Your task to perform on an android device: turn pop-ups off in chrome Image 0: 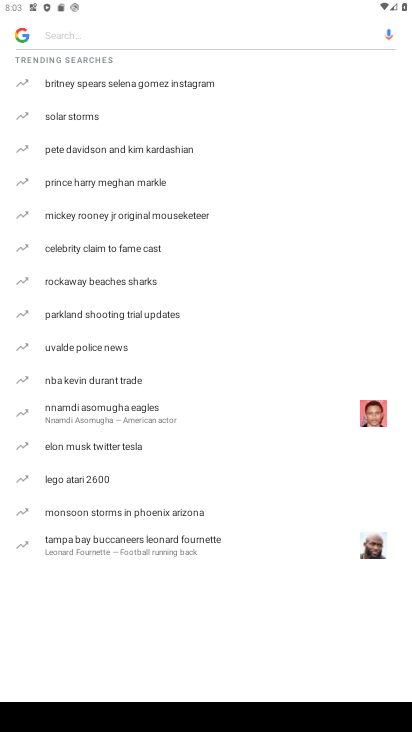
Step 0: press home button
Your task to perform on an android device: turn pop-ups off in chrome Image 1: 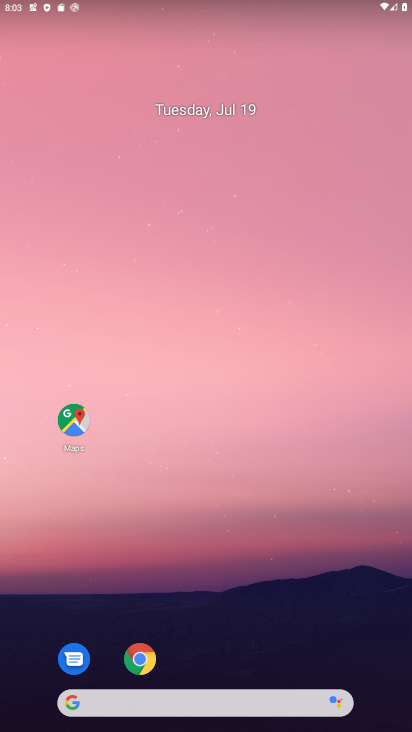
Step 1: click (143, 661)
Your task to perform on an android device: turn pop-ups off in chrome Image 2: 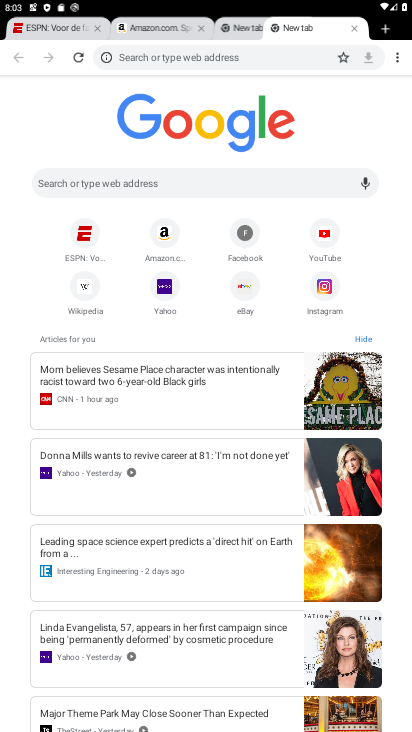
Step 2: click (396, 60)
Your task to perform on an android device: turn pop-ups off in chrome Image 3: 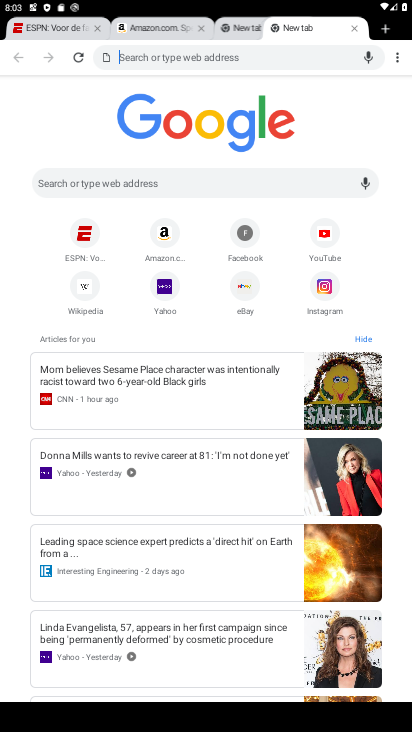
Step 3: click (395, 52)
Your task to perform on an android device: turn pop-ups off in chrome Image 4: 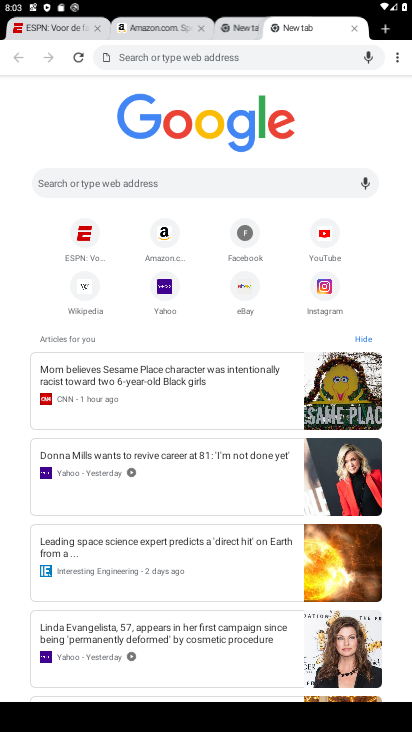
Step 4: click (403, 54)
Your task to perform on an android device: turn pop-ups off in chrome Image 5: 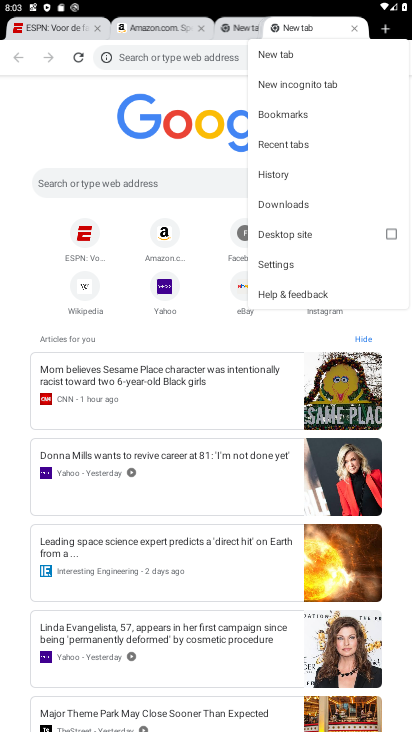
Step 5: click (278, 272)
Your task to perform on an android device: turn pop-ups off in chrome Image 6: 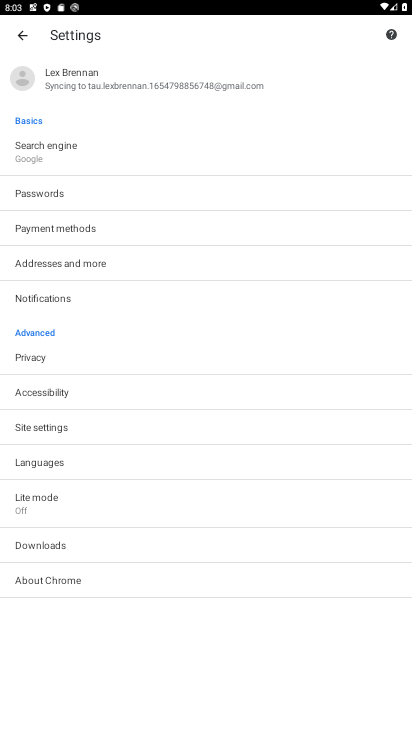
Step 6: click (30, 429)
Your task to perform on an android device: turn pop-ups off in chrome Image 7: 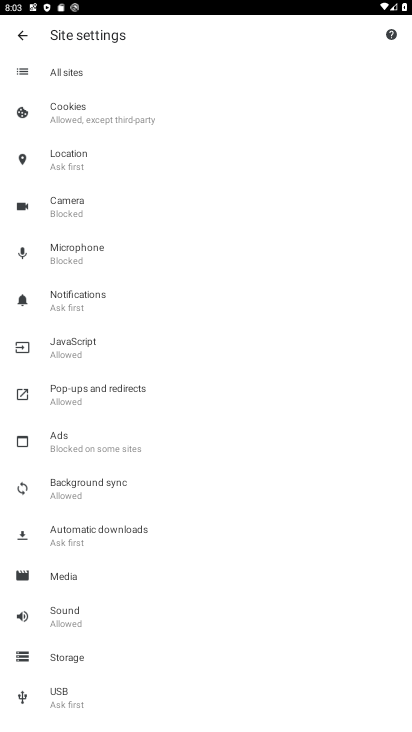
Step 7: click (90, 401)
Your task to perform on an android device: turn pop-ups off in chrome Image 8: 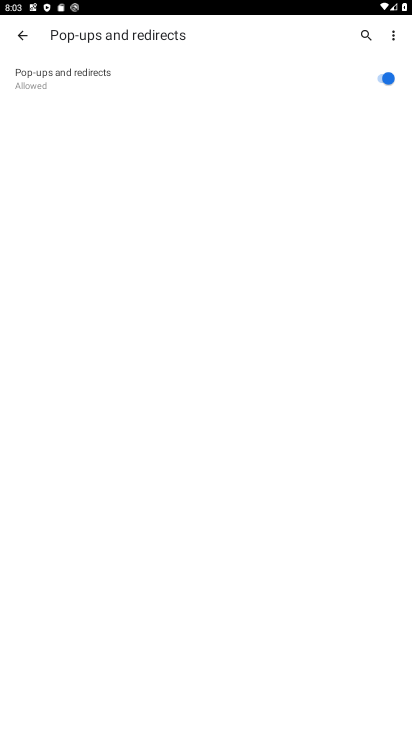
Step 8: click (379, 76)
Your task to perform on an android device: turn pop-ups off in chrome Image 9: 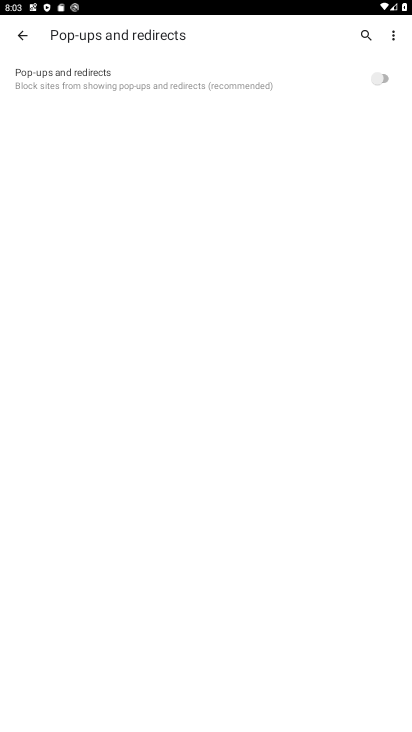
Step 9: task complete